Your task to perform on an android device: turn on notifications settings in the gmail app Image 0: 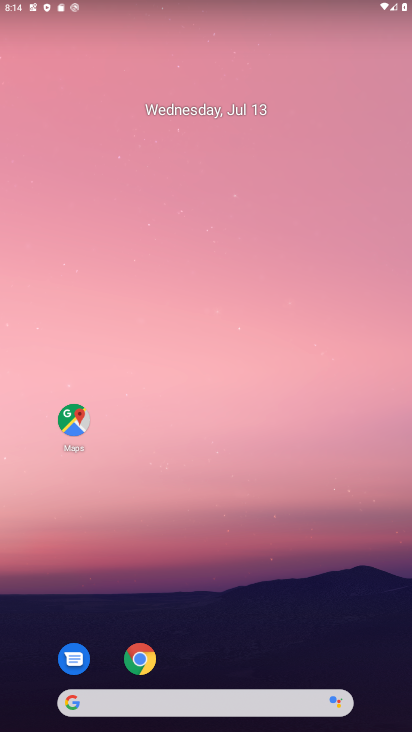
Step 0: drag from (216, 663) to (217, 235)
Your task to perform on an android device: turn on notifications settings in the gmail app Image 1: 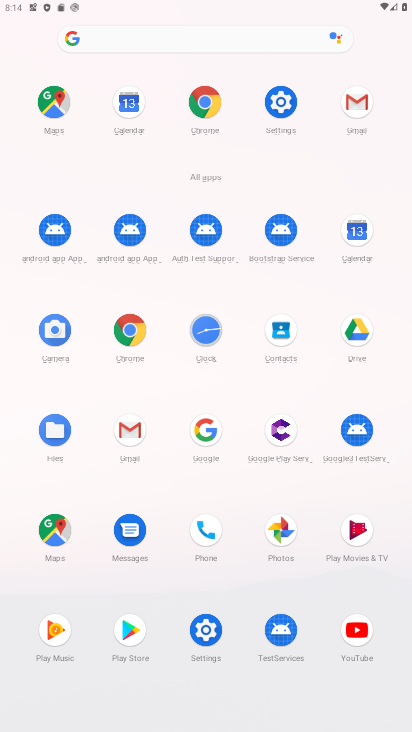
Step 1: click (344, 103)
Your task to perform on an android device: turn on notifications settings in the gmail app Image 2: 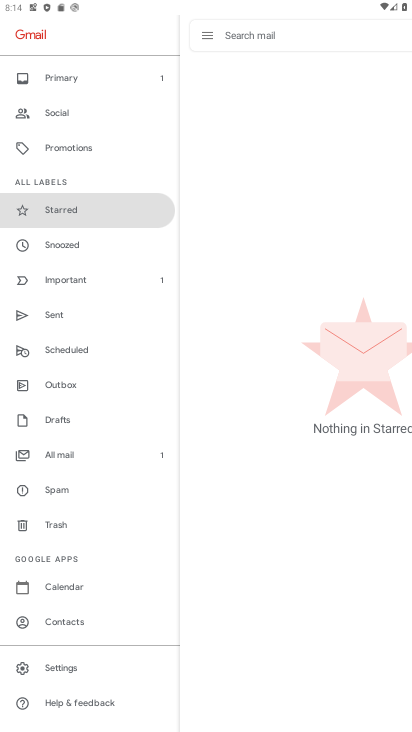
Step 2: click (80, 660)
Your task to perform on an android device: turn on notifications settings in the gmail app Image 3: 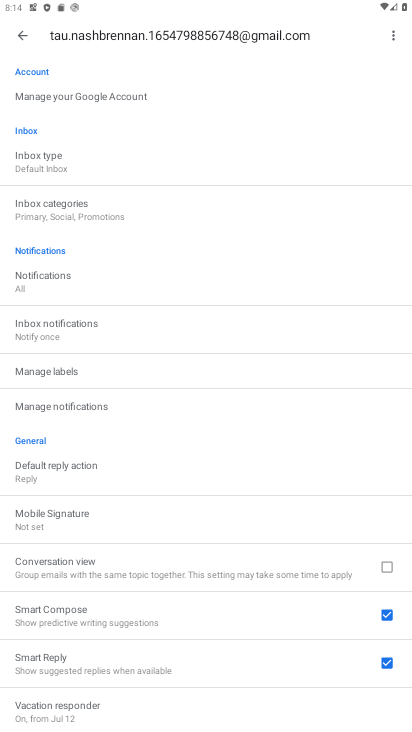
Step 3: click (129, 401)
Your task to perform on an android device: turn on notifications settings in the gmail app Image 4: 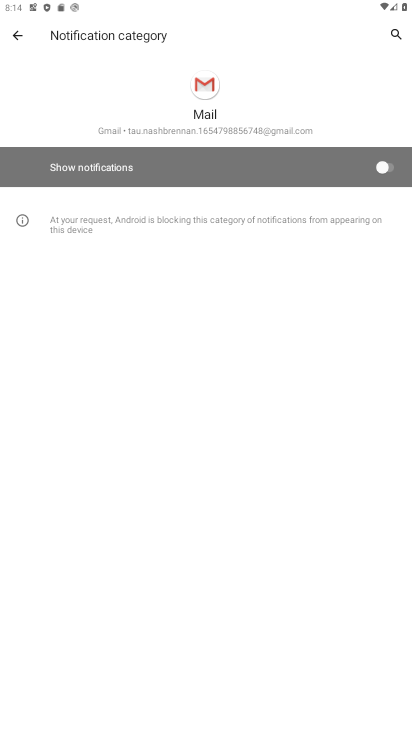
Step 4: click (391, 156)
Your task to perform on an android device: turn on notifications settings in the gmail app Image 5: 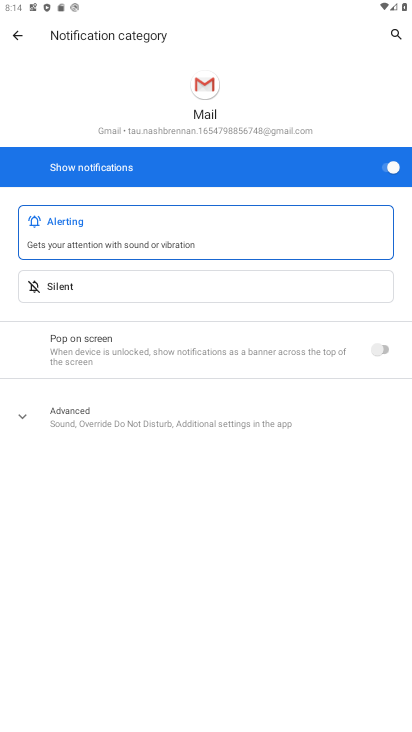
Step 5: task complete